Your task to perform on an android device: Open Chrome and go to the settings page Image 0: 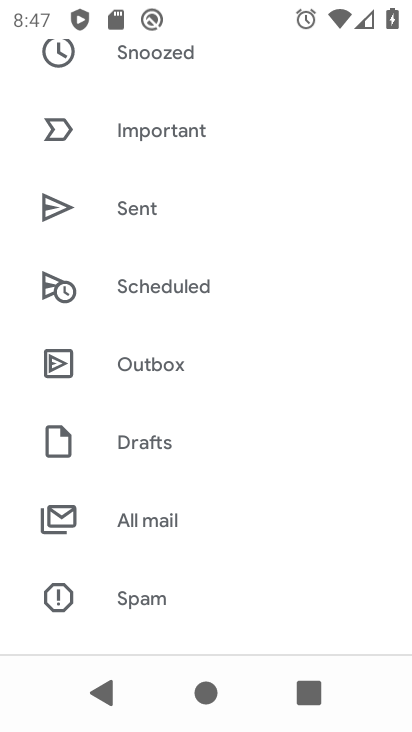
Step 0: drag from (214, 441) to (282, 120)
Your task to perform on an android device: Open Chrome and go to the settings page Image 1: 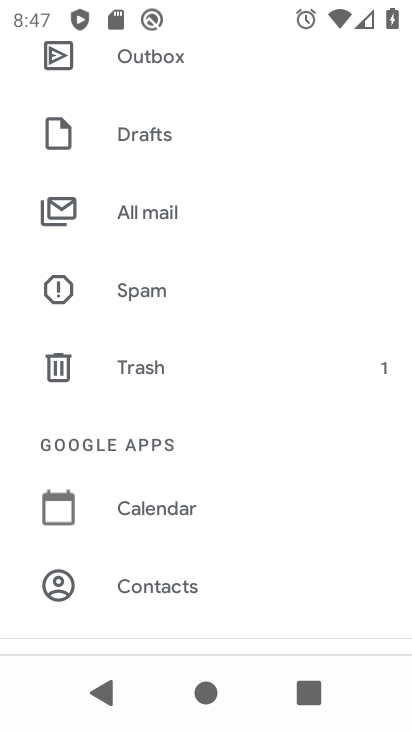
Step 1: drag from (211, 474) to (225, 47)
Your task to perform on an android device: Open Chrome and go to the settings page Image 2: 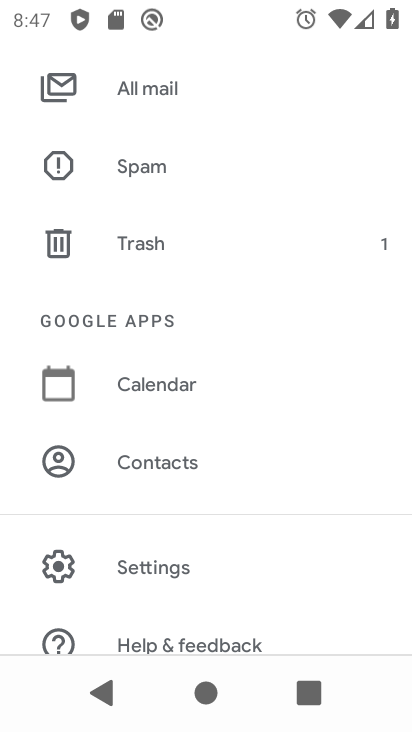
Step 2: click (159, 511)
Your task to perform on an android device: Open Chrome and go to the settings page Image 3: 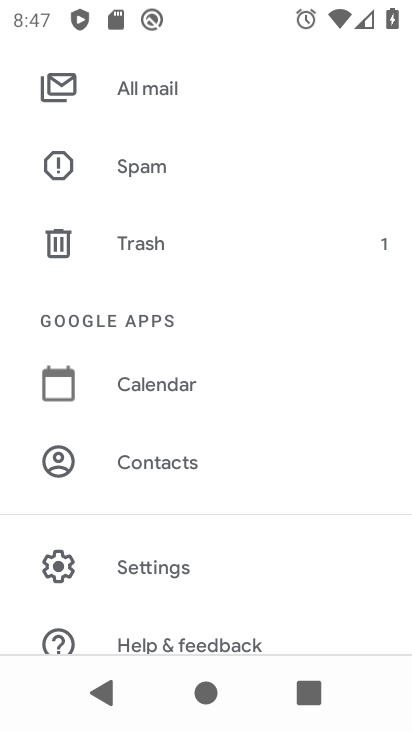
Step 3: click (149, 540)
Your task to perform on an android device: Open Chrome and go to the settings page Image 4: 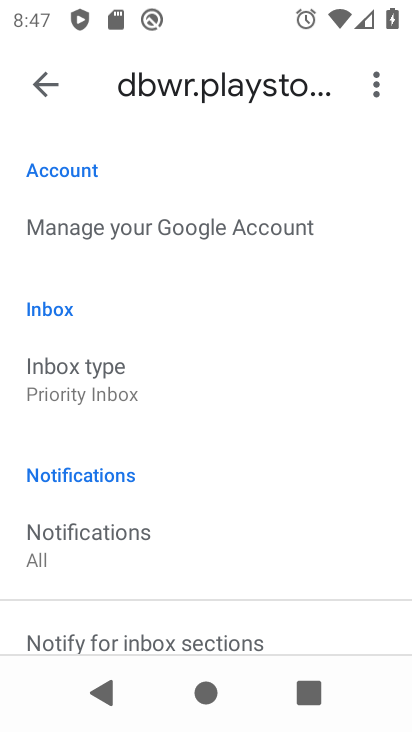
Step 4: task complete